Your task to perform on an android device: Set the phone to "Do not disturb". Image 0: 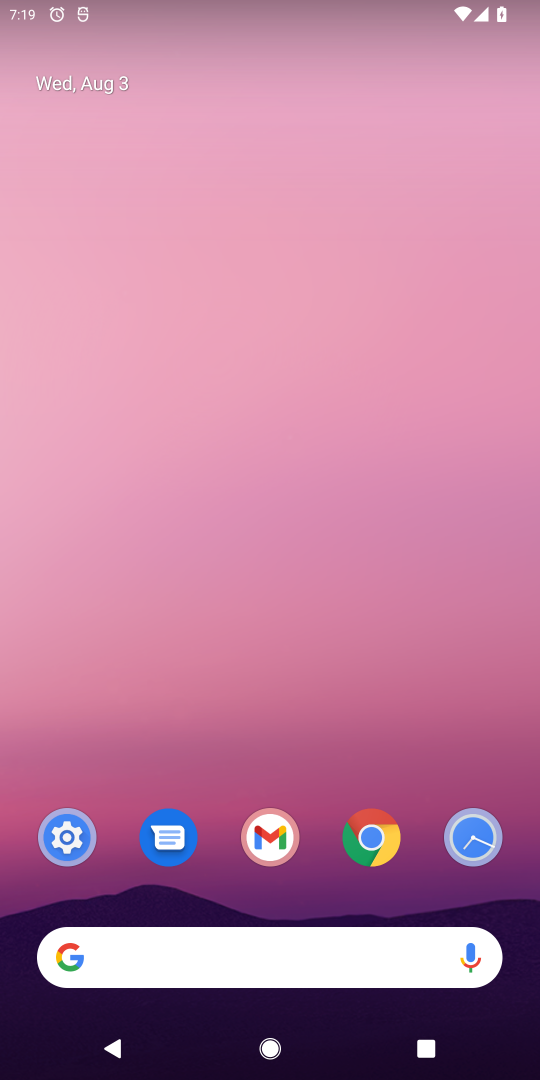
Step 0: press home button
Your task to perform on an android device: Set the phone to "Do not disturb". Image 1: 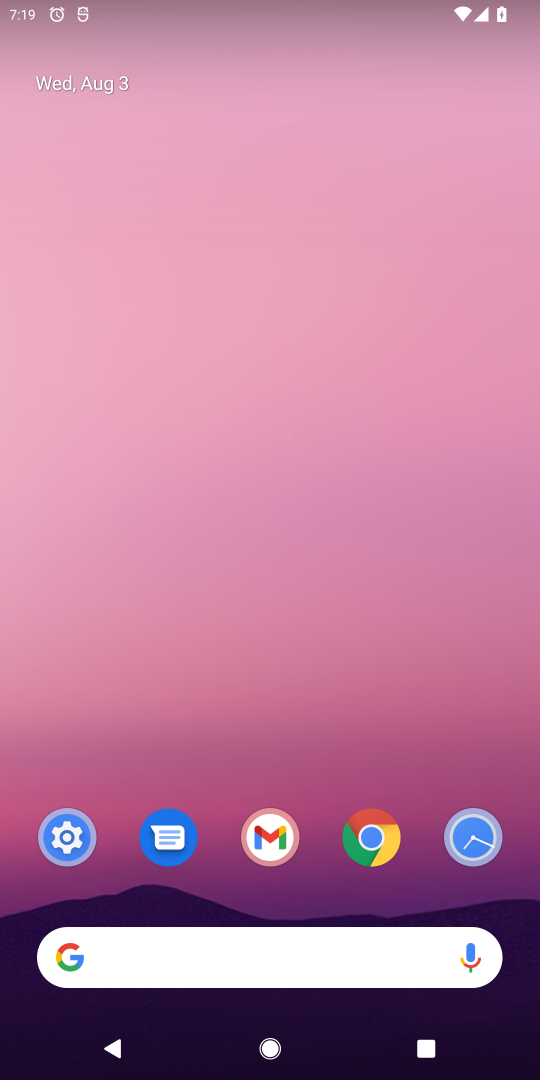
Step 1: drag from (315, 200) to (427, 2)
Your task to perform on an android device: Set the phone to "Do not disturb". Image 2: 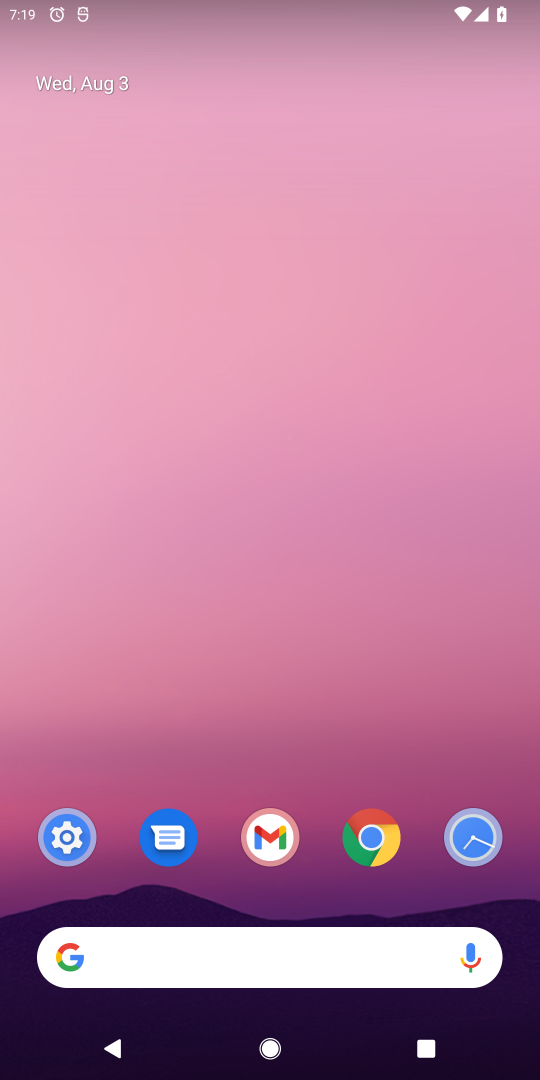
Step 2: drag from (251, 7) to (276, 586)
Your task to perform on an android device: Set the phone to "Do not disturb". Image 3: 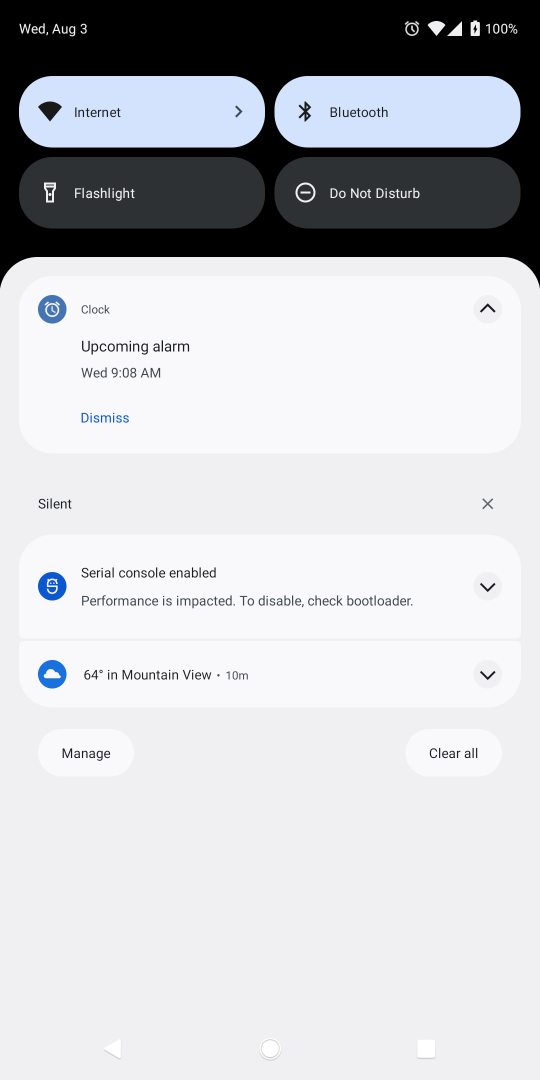
Step 3: click (375, 184)
Your task to perform on an android device: Set the phone to "Do not disturb". Image 4: 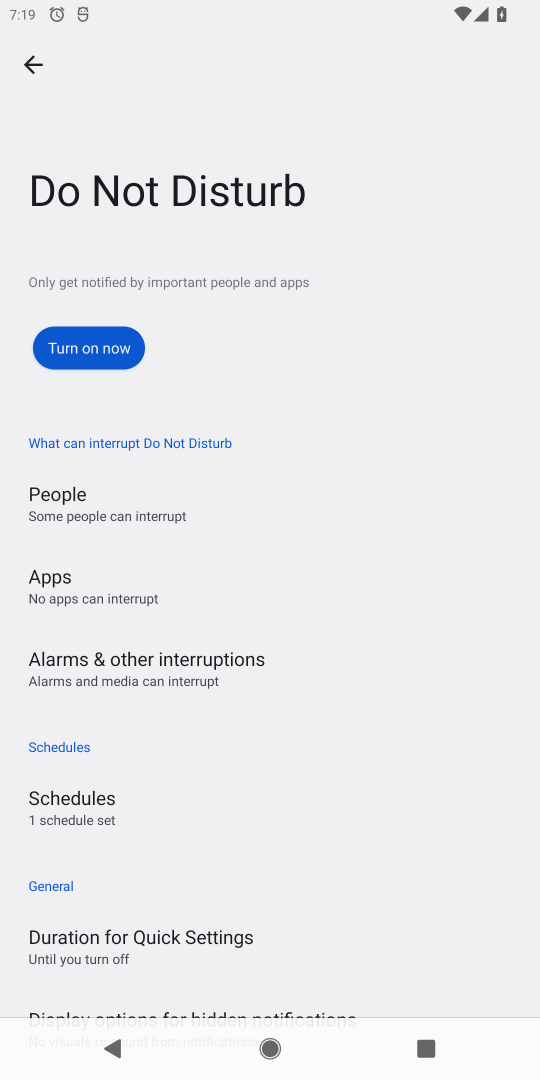
Step 4: click (98, 351)
Your task to perform on an android device: Set the phone to "Do not disturb". Image 5: 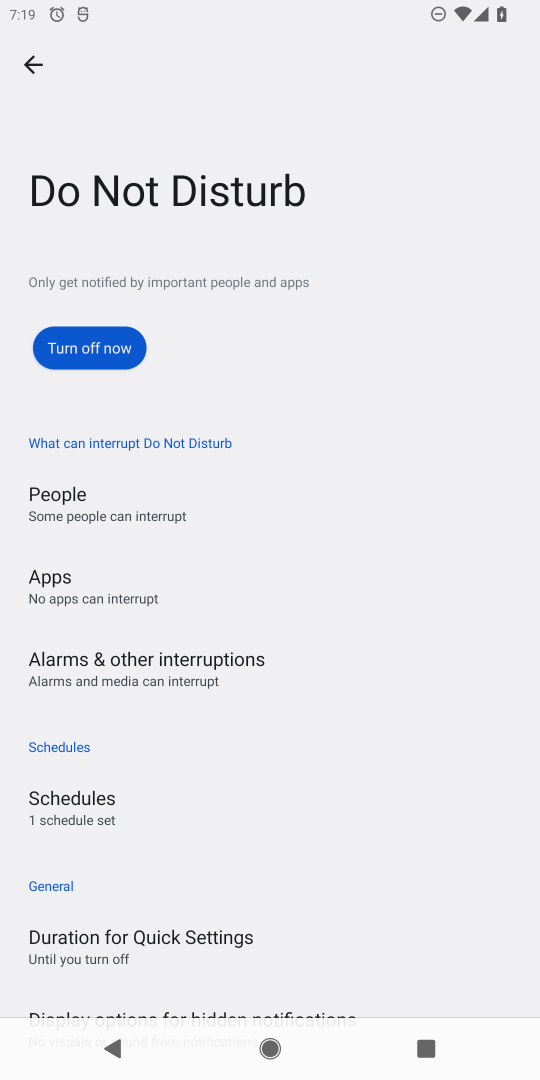
Step 5: click (99, 343)
Your task to perform on an android device: Set the phone to "Do not disturb". Image 6: 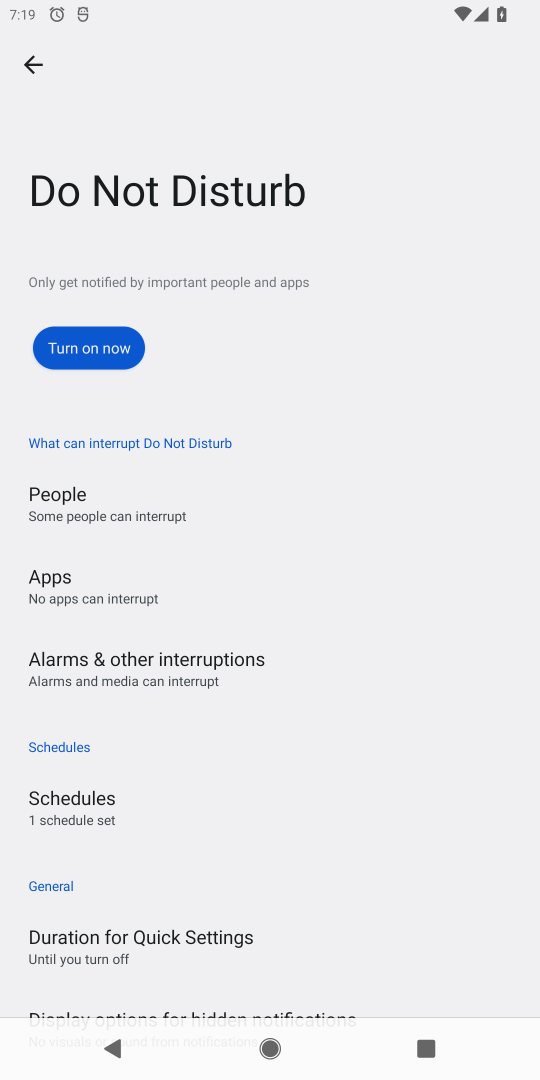
Step 6: task complete